Your task to perform on an android device: open app "Google Duo" Image 0: 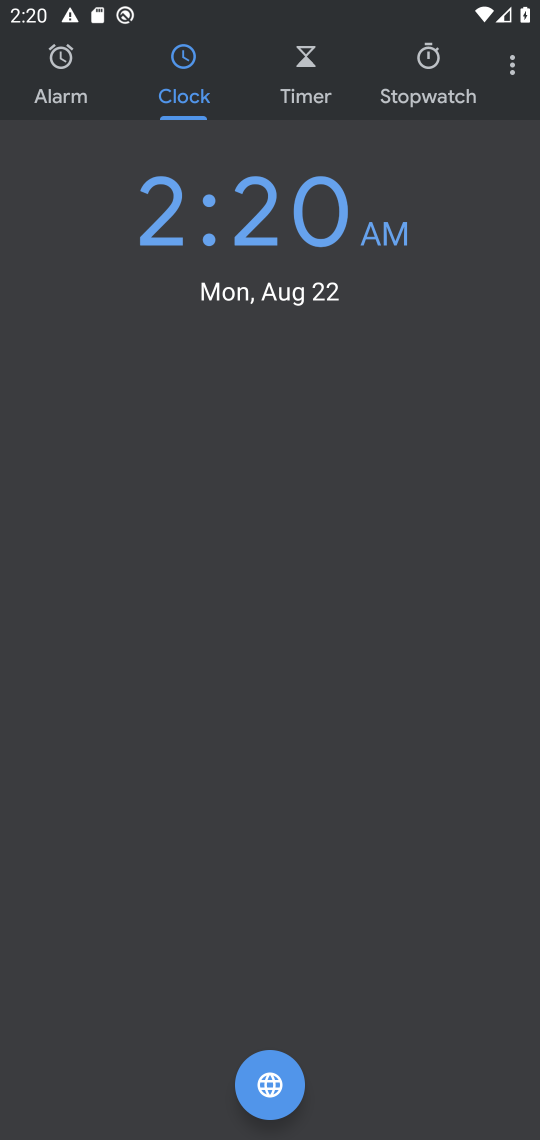
Step 0: press home button
Your task to perform on an android device: open app "Google Duo" Image 1: 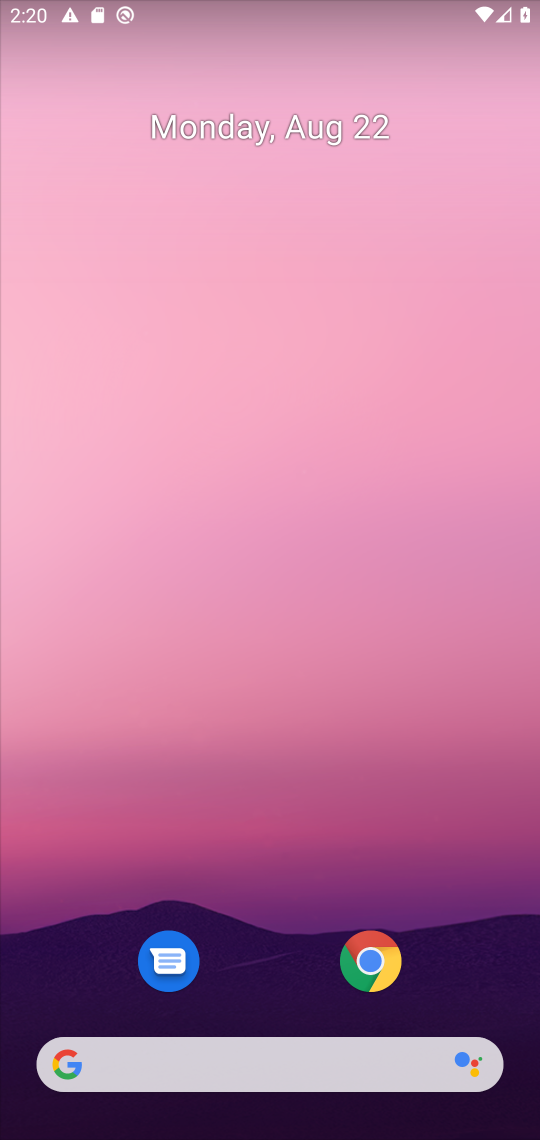
Step 1: drag from (467, 993) to (501, 151)
Your task to perform on an android device: open app "Google Duo" Image 2: 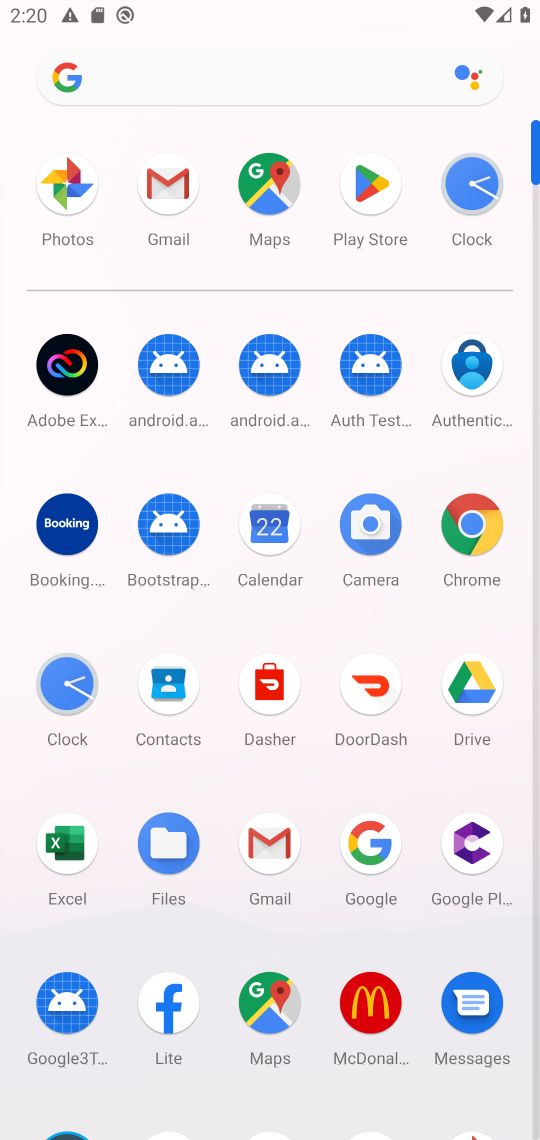
Step 2: click (369, 177)
Your task to perform on an android device: open app "Google Duo" Image 3: 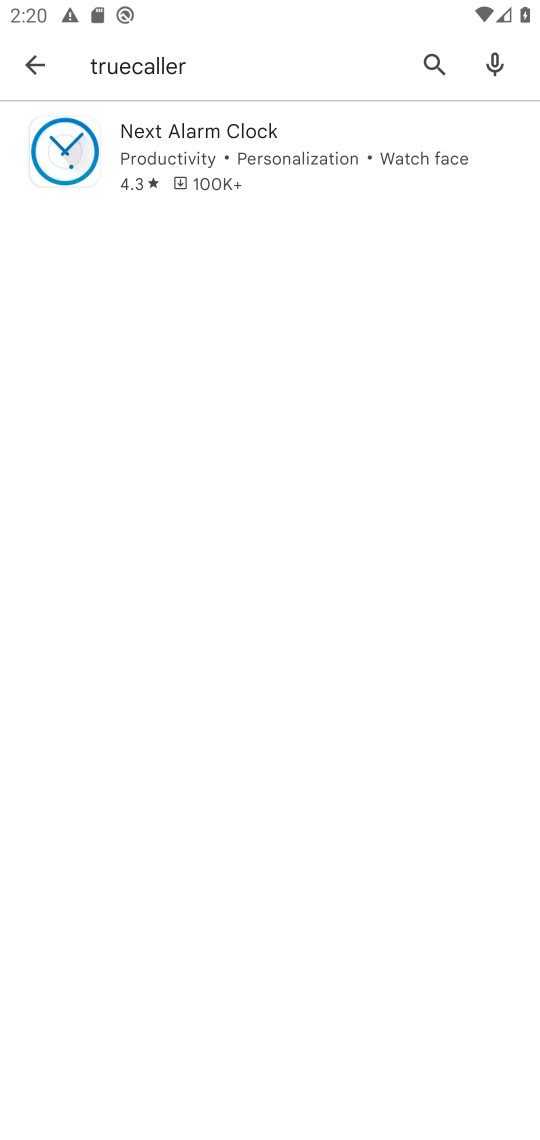
Step 3: press back button
Your task to perform on an android device: open app "Google Duo" Image 4: 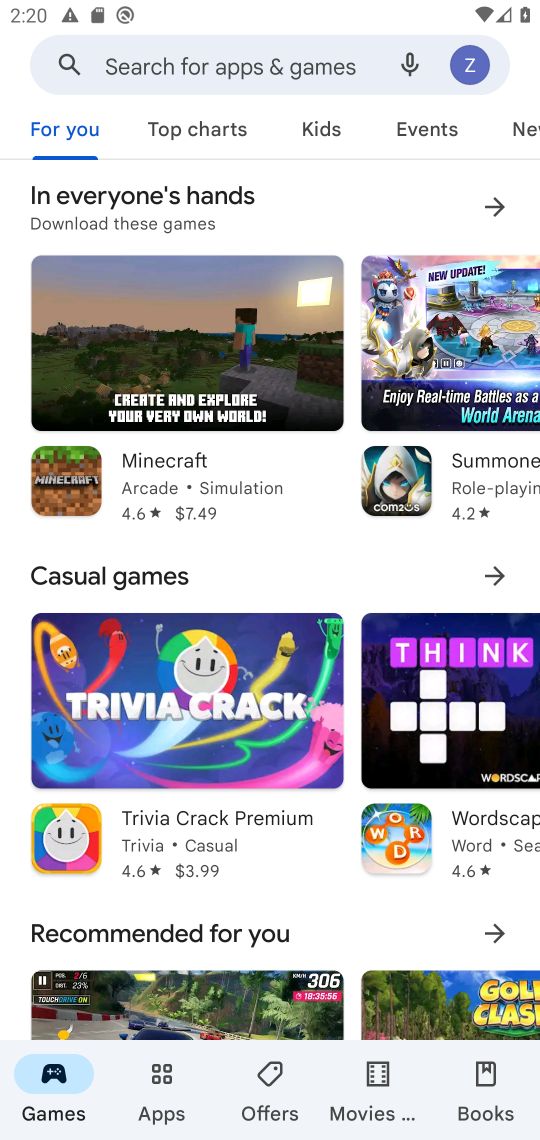
Step 4: click (318, 59)
Your task to perform on an android device: open app "Google Duo" Image 5: 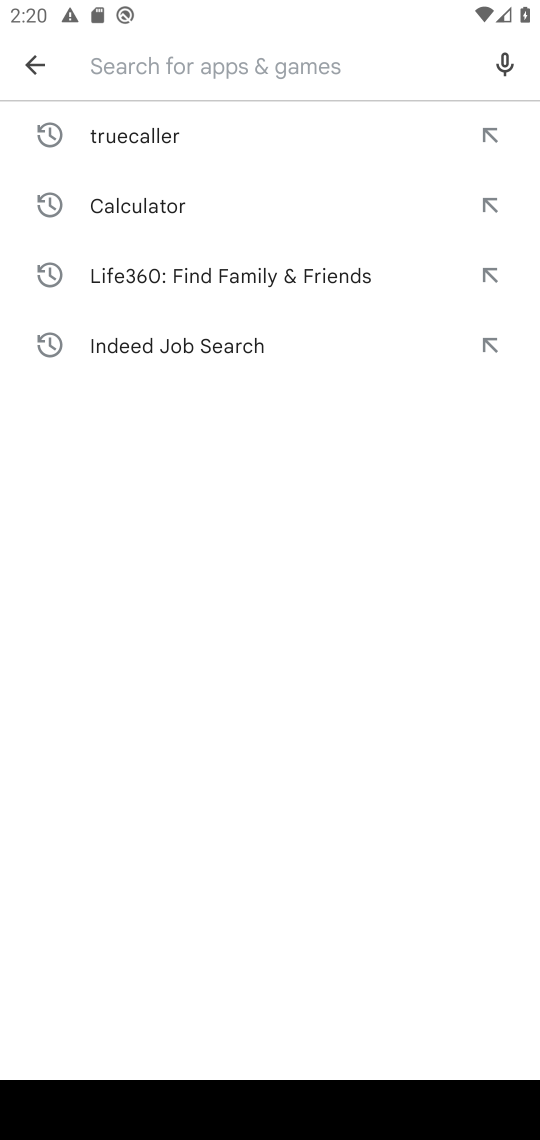
Step 5: type "Google Duo"
Your task to perform on an android device: open app "Google Duo" Image 6: 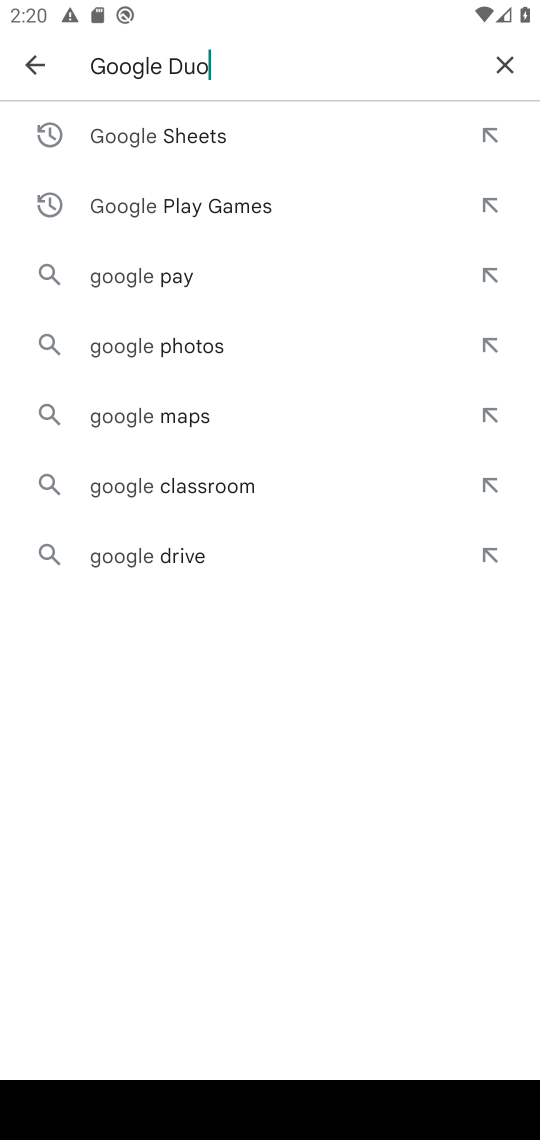
Step 6: press enter
Your task to perform on an android device: open app "Google Duo" Image 7: 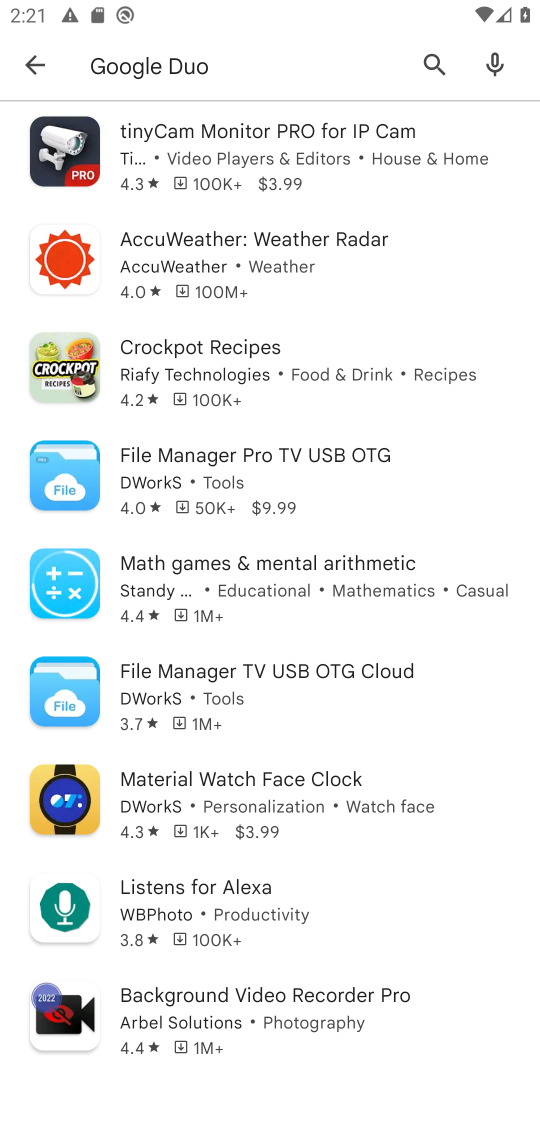
Step 7: task complete